Your task to perform on an android device: Go to CNN.com Image 0: 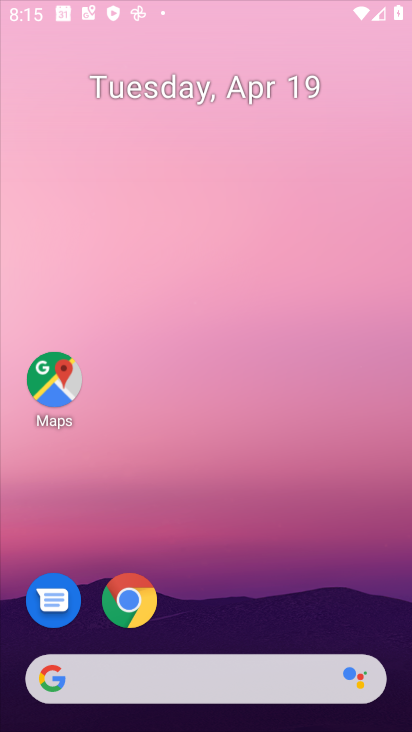
Step 0: drag from (328, 309) to (316, 104)
Your task to perform on an android device: Go to CNN.com Image 1: 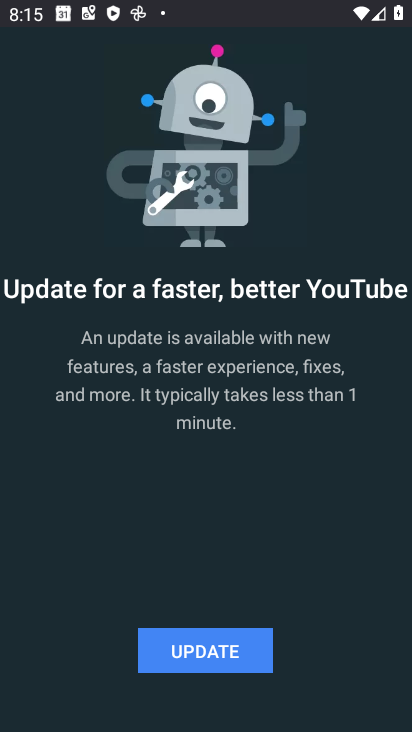
Step 1: press back button
Your task to perform on an android device: Go to CNN.com Image 2: 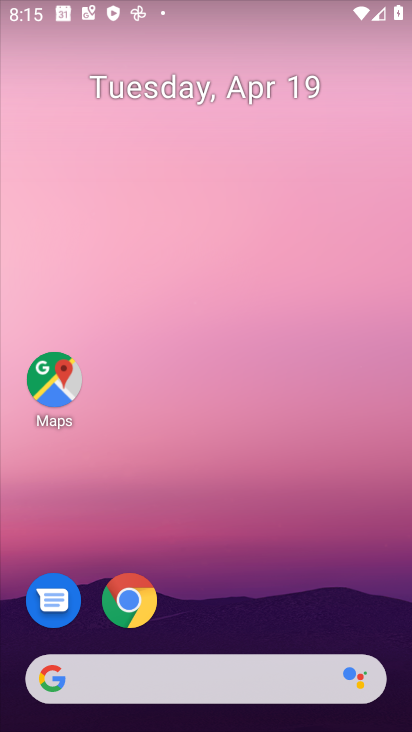
Step 2: drag from (310, 555) to (300, 48)
Your task to perform on an android device: Go to CNN.com Image 3: 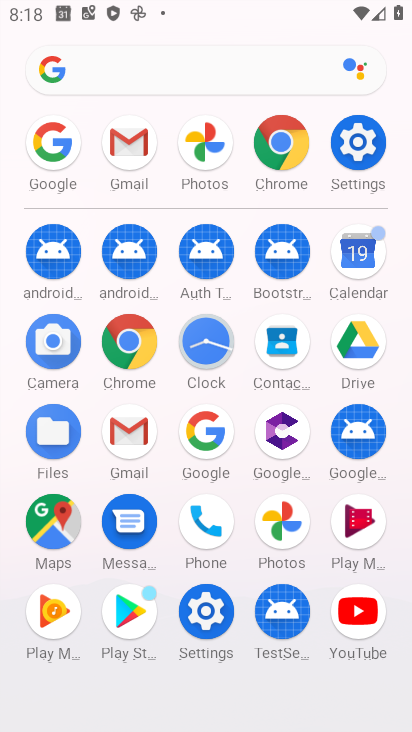
Step 3: click (136, 340)
Your task to perform on an android device: Go to CNN.com Image 4: 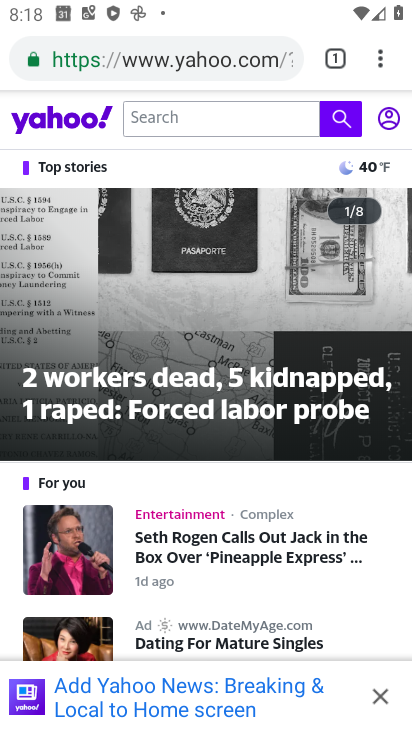
Step 4: press back button
Your task to perform on an android device: Go to CNN.com Image 5: 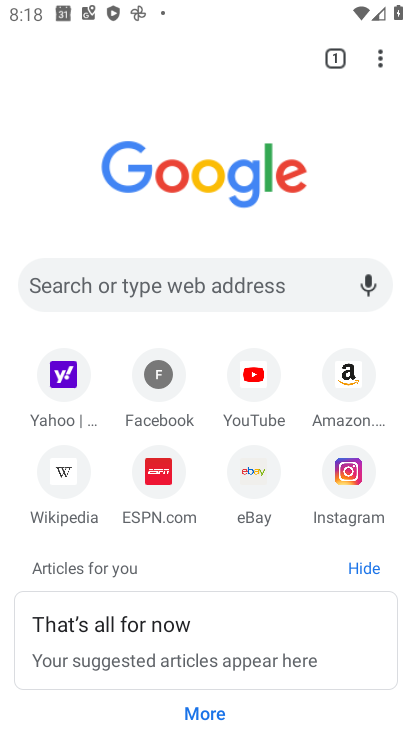
Step 5: click (192, 275)
Your task to perform on an android device: Go to CNN.com Image 6: 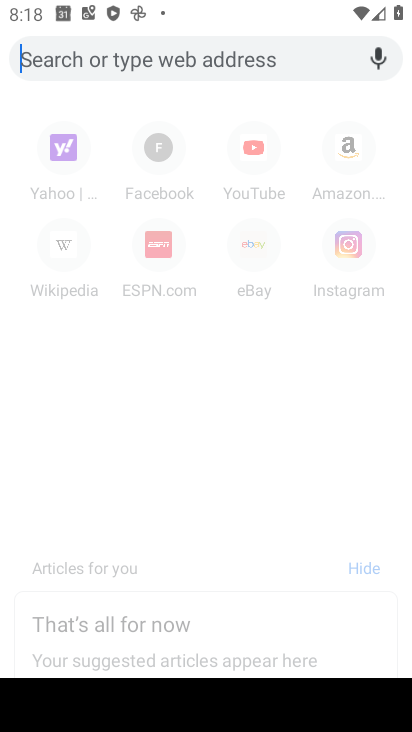
Step 6: type "cnn.com"
Your task to perform on an android device: Go to CNN.com Image 7: 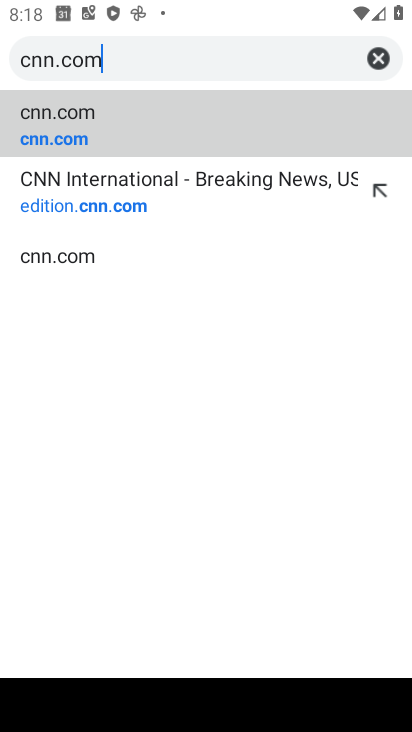
Step 7: click (145, 133)
Your task to perform on an android device: Go to CNN.com Image 8: 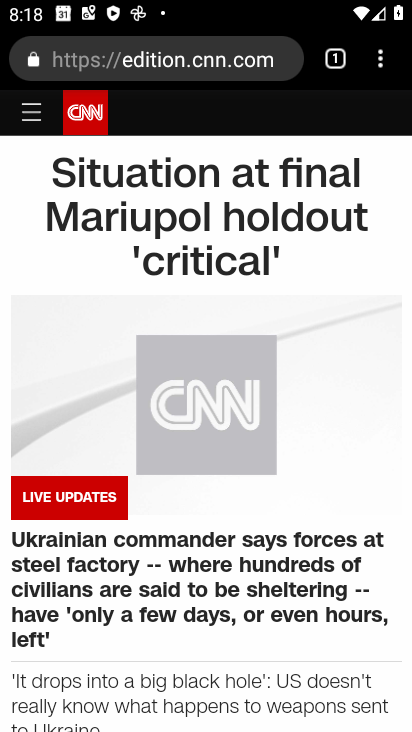
Step 8: task complete